Your task to perform on an android device: remove spam from my inbox in the gmail app Image 0: 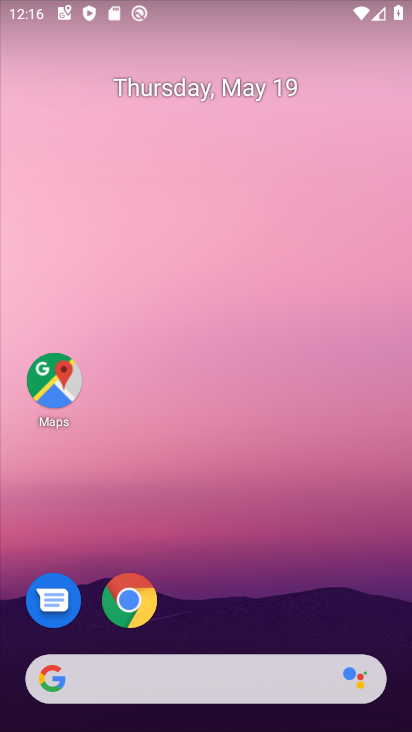
Step 0: drag from (313, 469) to (192, 18)
Your task to perform on an android device: remove spam from my inbox in the gmail app Image 1: 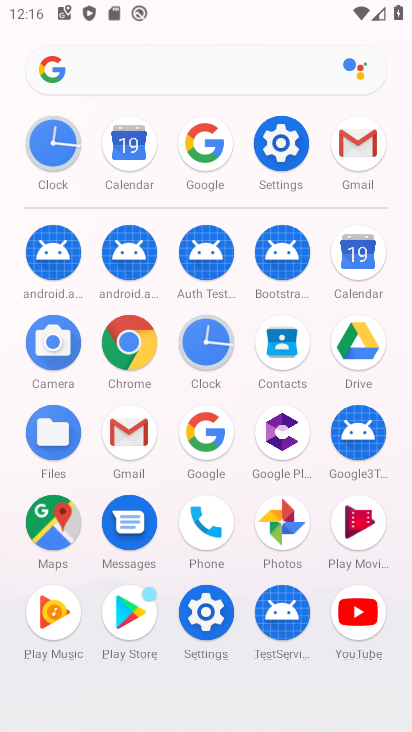
Step 1: click (357, 159)
Your task to perform on an android device: remove spam from my inbox in the gmail app Image 2: 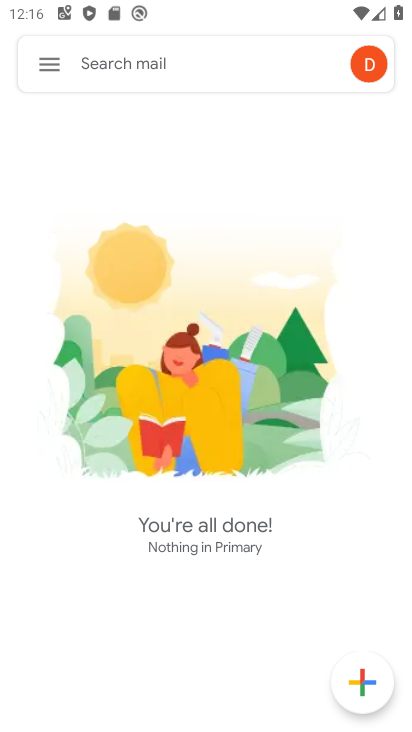
Step 2: click (54, 60)
Your task to perform on an android device: remove spam from my inbox in the gmail app Image 3: 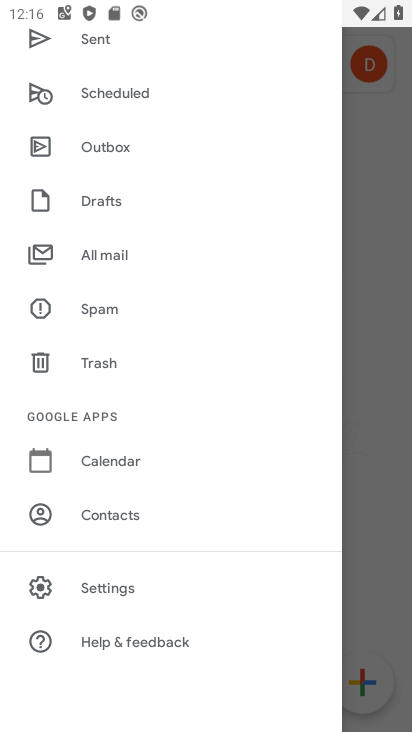
Step 3: click (134, 311)
Your task to perform on an android device: remove spam from my inbox in the gmail app Image 4: 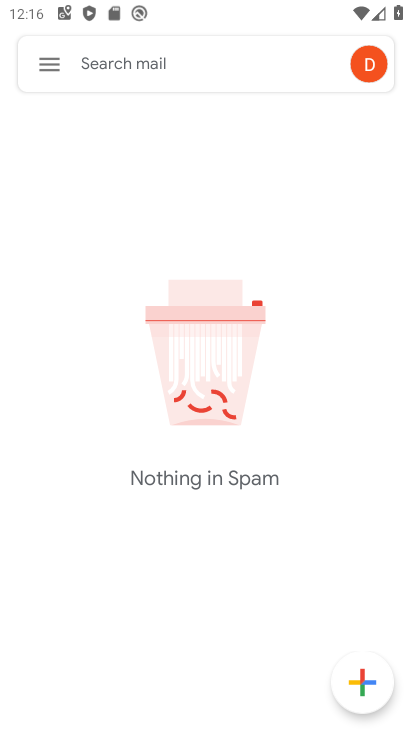
Step 4: task complete